Your task to perform on an android device: When is my next appointment? Image 0: 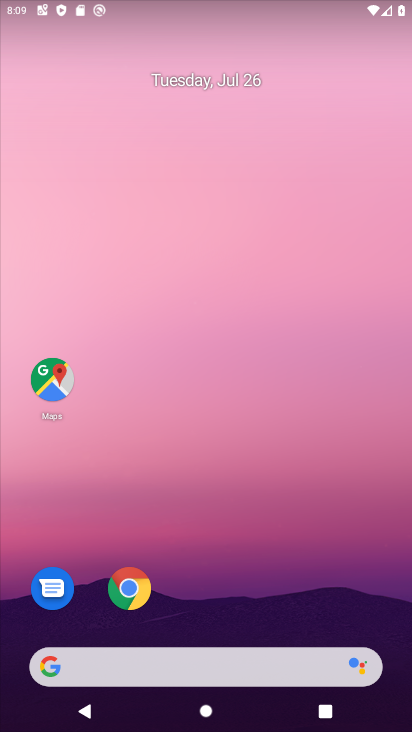
Step 0: drag from (304, 519) to (322, 80)
Your task to perform on an android device: When is my next appointment? Image 1: 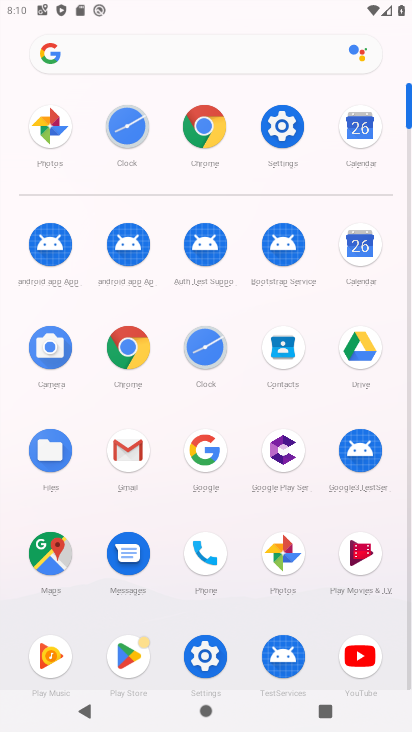
Step 1: click (355, 251)
Your task to perform on an android device: When is my next appointment? Image 2: 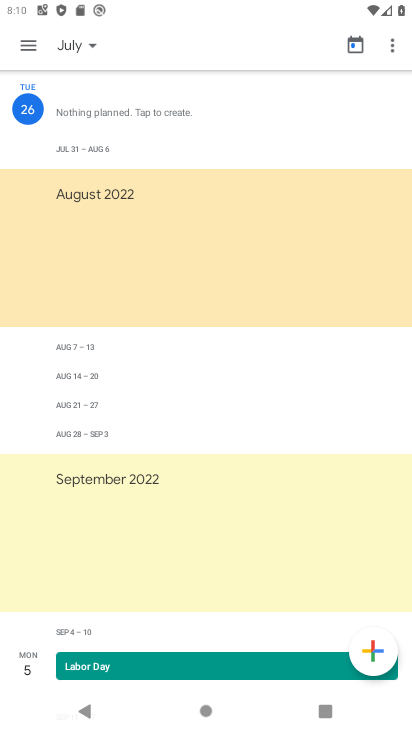
Step 2: task complete